Your task to perform on an android device: toggle notifications settings in the gmail app Image 0: 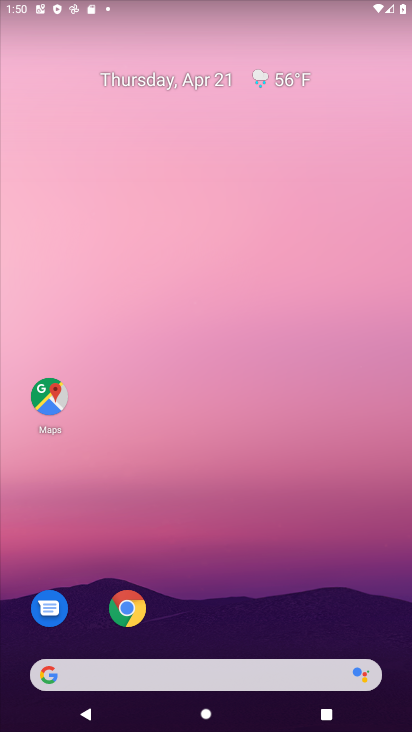
Step 0: drag from (213, 517) to (172, 13)
Your task to perform on an android device: toggle notifications settings in the gmail app Image 1: 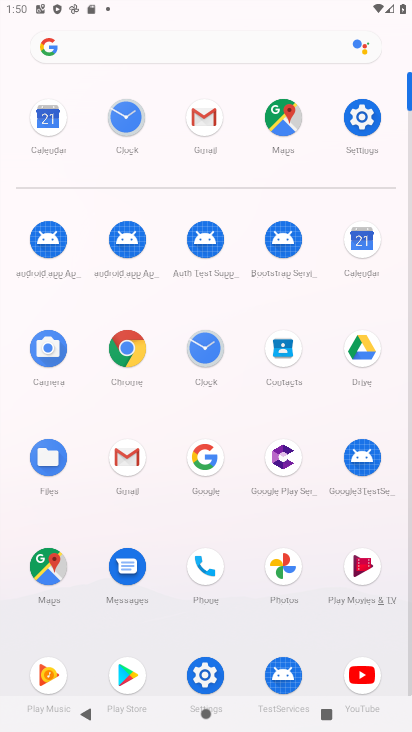
Step 1: click (124, 456)
Your task to perform on an android device: toggle notifications settings in the gmail app Image 2: 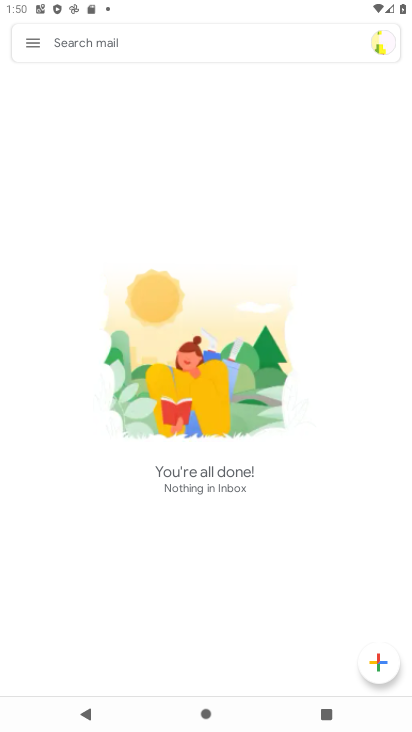
Step 2: click (31, 40)
Your task to perform on an android device: toggle notifications settings in the gmail app Image 3: 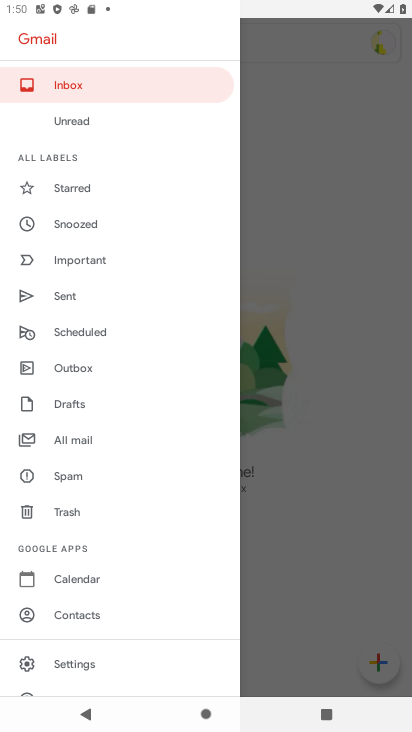
Step 3: click (82, 661)
Your task to perform on an android device: toggle notifications settings in the gmail app Image 4: 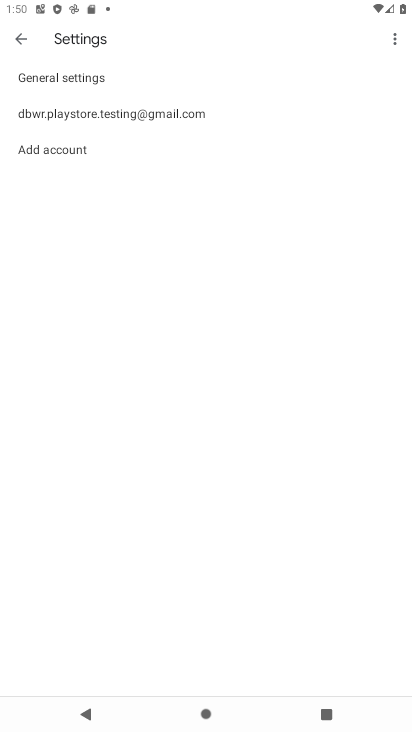
Step 4: click (102, 81)
Your task to perform on an android device: toggle notifications settings in the gmail app Image 5: 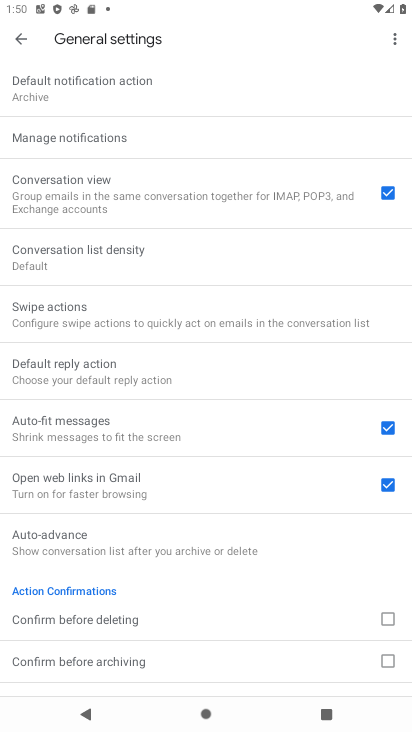
Step 5: click (109, 139)
Your task to perform on an android device: toggle notifications settings in the gmail app Image 6: 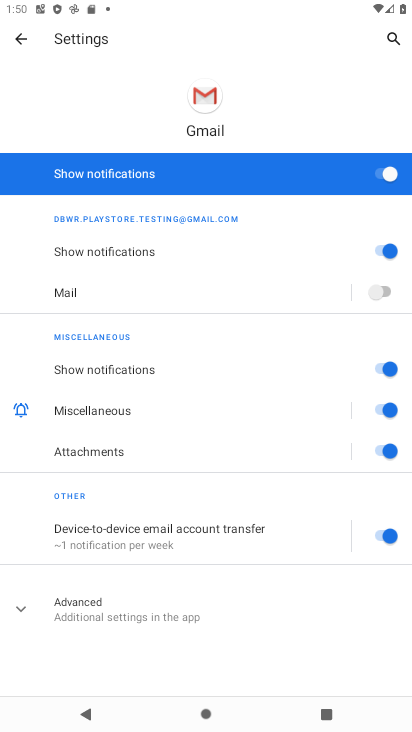
Step 6: click (376, 165)
Your task to perform on an android device: toggle notifications settings in the gmail app Image 7: 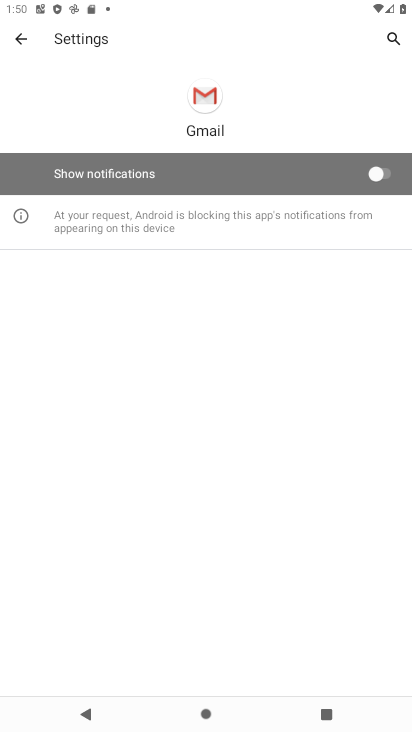
Step 7: task complete